Your task to perform on an android device: Search for seafood restaurants on Google Maps Image 0: 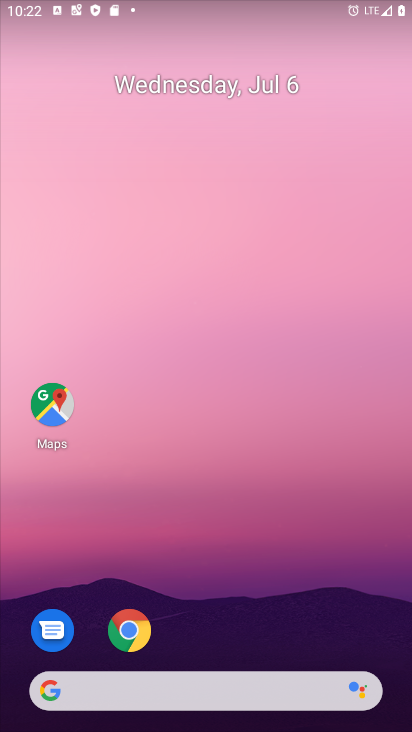
Step 0: click (48, 403)
Your task to perform on an android device: Search for seafood restaurants on Google Maps Image 1: 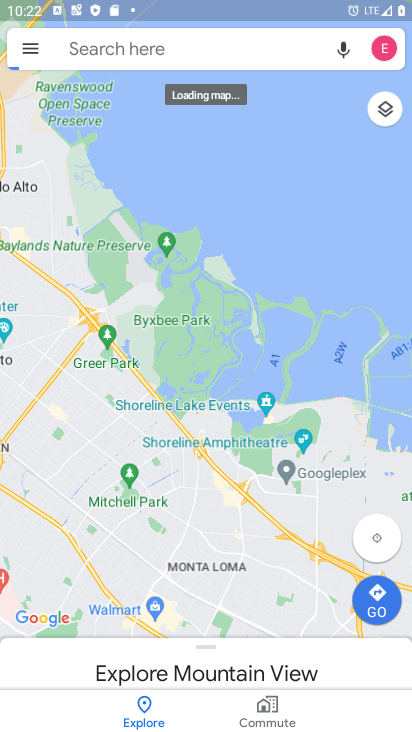
Step 1: click (130, 47)
Your task to perform on an android device: Search for seafood restaurants on Google Maps Image 2: 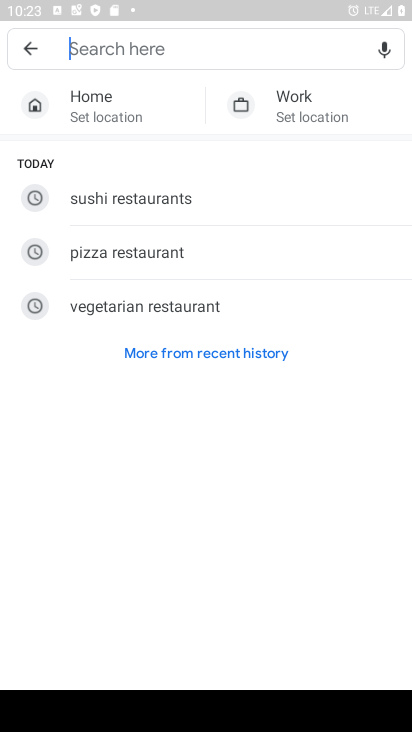
Step 2: type "seafood restaurants"
Your task to perform on an android device: Search for seafood restaurants on Google Maps Image 3: 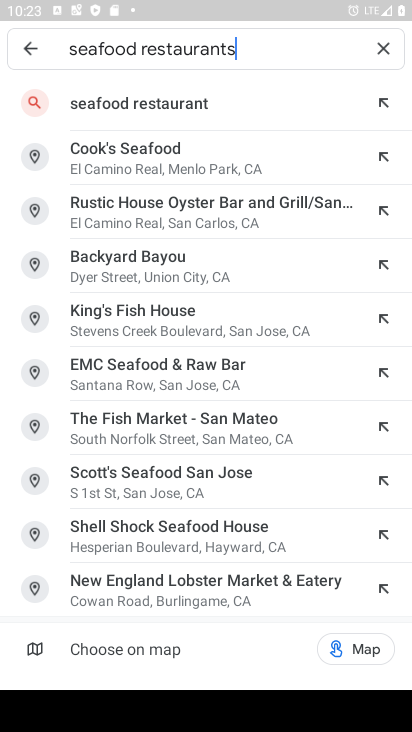
Step 3: click (152, 98)
Your task to perform on an android device: Search for seafood restaurants on Google Maps Image 4: 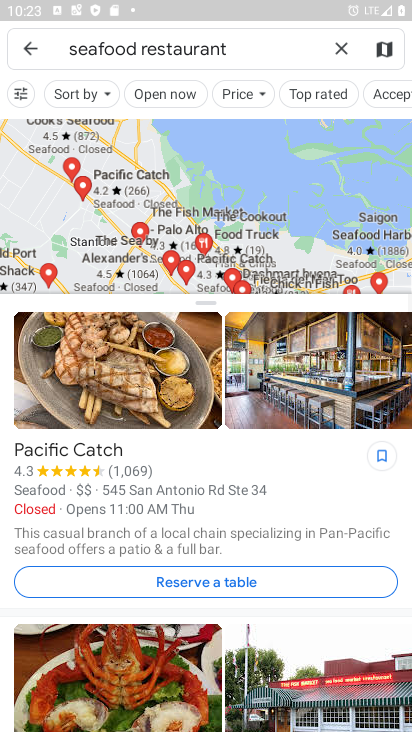
Step 4: task complete